Your task to perform on an android device: open device folders in google photos Image 0: 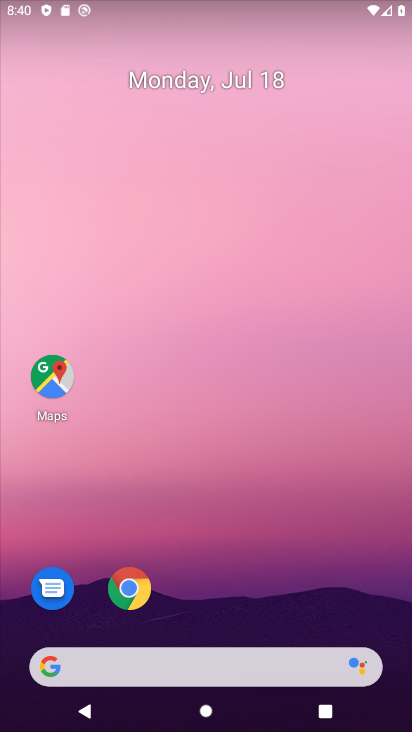
Step 0: press home button
Your task to perform on an android device: open device folders in google photos Image 1: 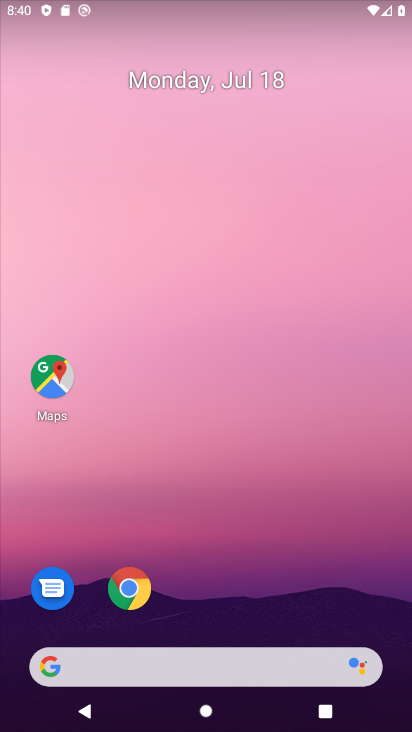
Step 1: drag from (335, 685) to (365, 16)
Your task to perform on an android device: open device folders in google photos Image 2: 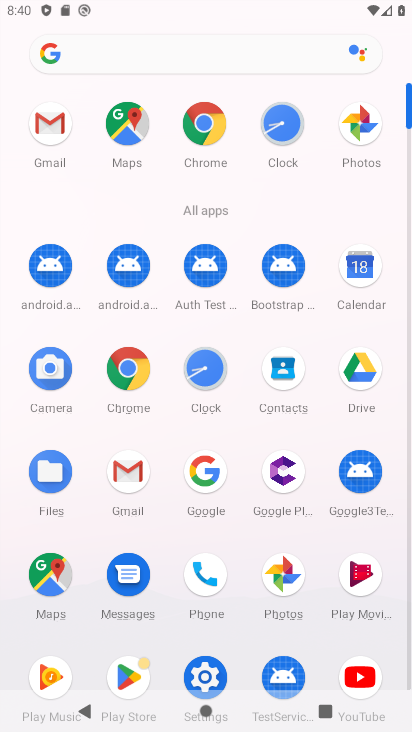
Step 2: click (278, 564)
Your task to perform on an android device: open device folders in google photos Image 3: 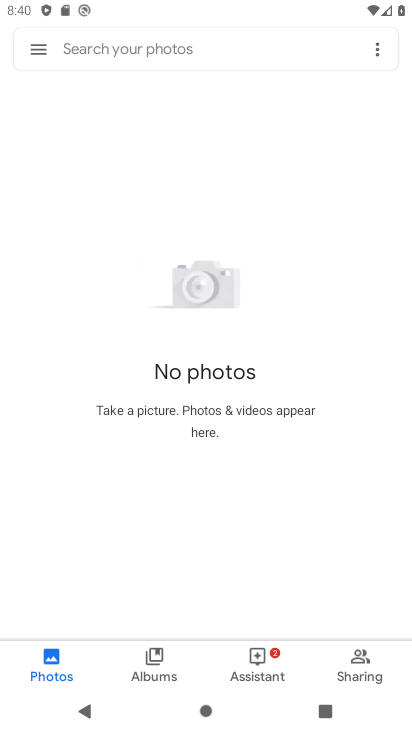
Step 3: click (47, 57)
Your task to perform on an android device: open device folders in google photos Image 4: 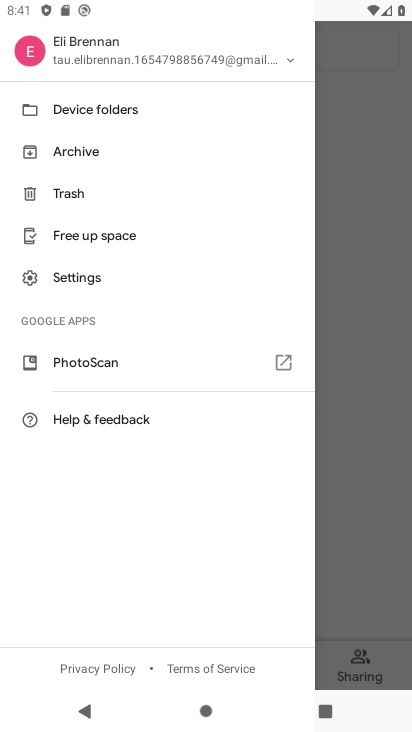
Step 4: click (87, 109)
Your task to perform on an android device: open device folders in google photos Image 5: 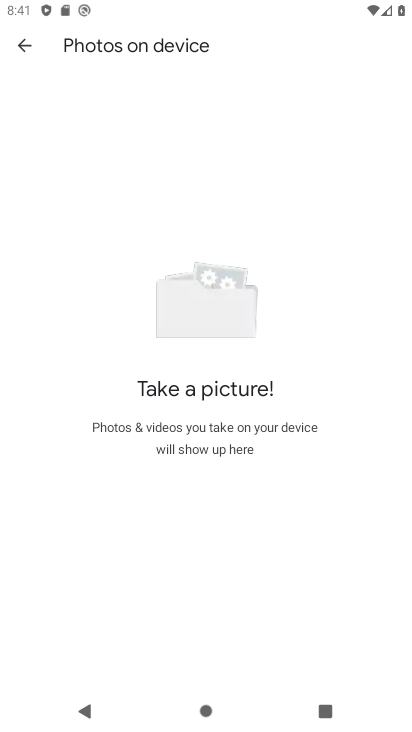
Step 5: task complete